Your task to perform on an android device: Check the weather Image 0: 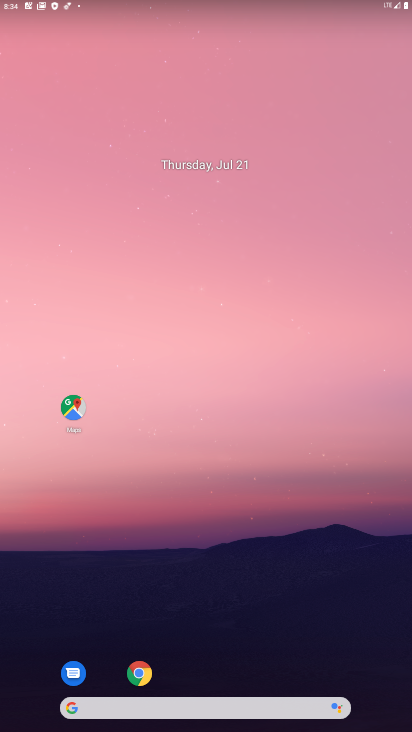
Step 0: drag from (202, 655) to (269, 76)
Your task to perform on an android device: Check the weather Image 1: 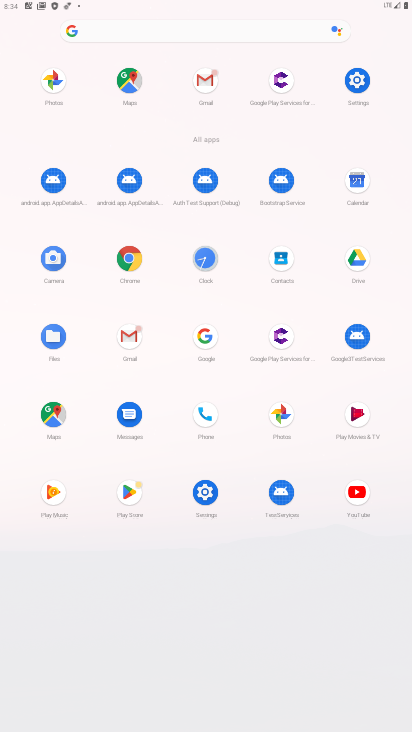
Step 1: click (206, 337)
Your task to perform on an android device: Check the weather Image 2: 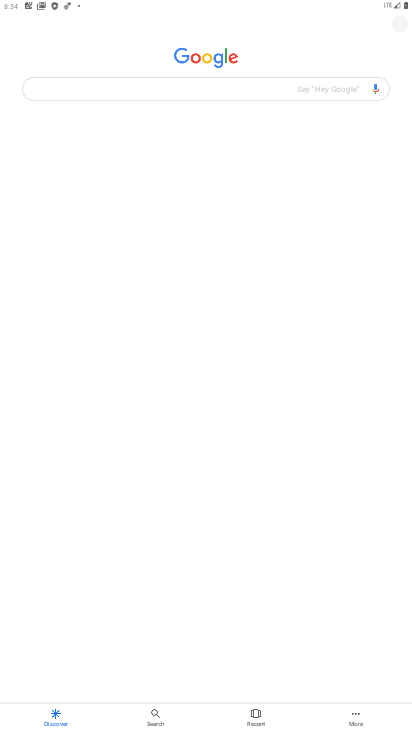
Step 2: click (131, 89)
Your task to perform on an android device: Check the weather Image 3: 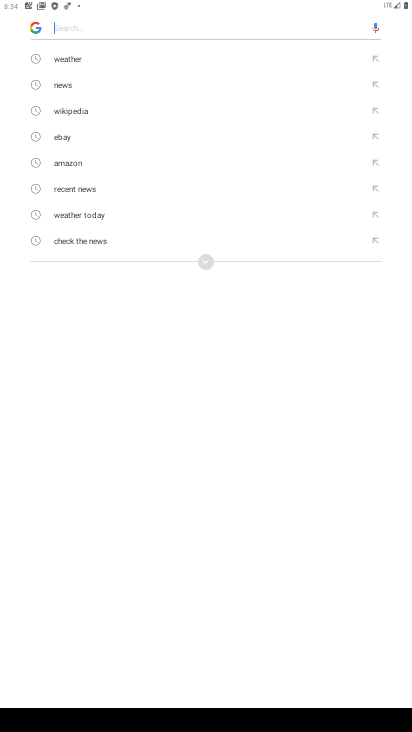
Step 3: type "check the weather"
Your task to perform on an android device: Check the weather Image 4: 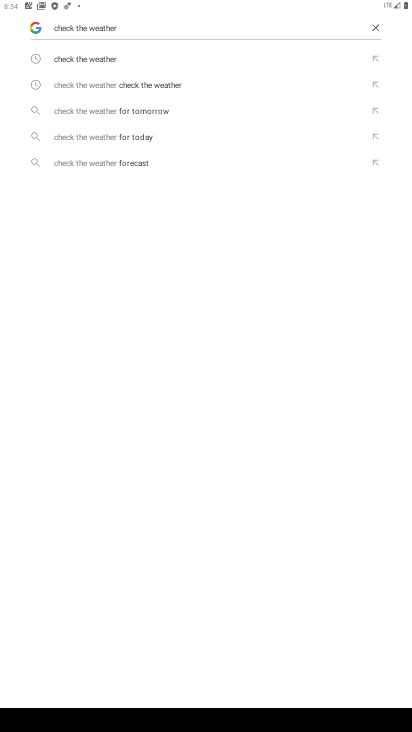
Step 4: click (94, 58)
Your task to perform on an android device: Check the weather Image 5: 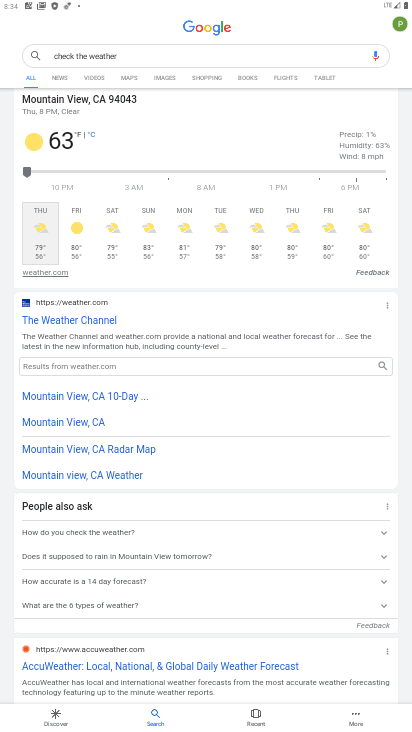
Step 5: task complete